Your task to perform on an android device: change notification settings in the gmail app Image 0: 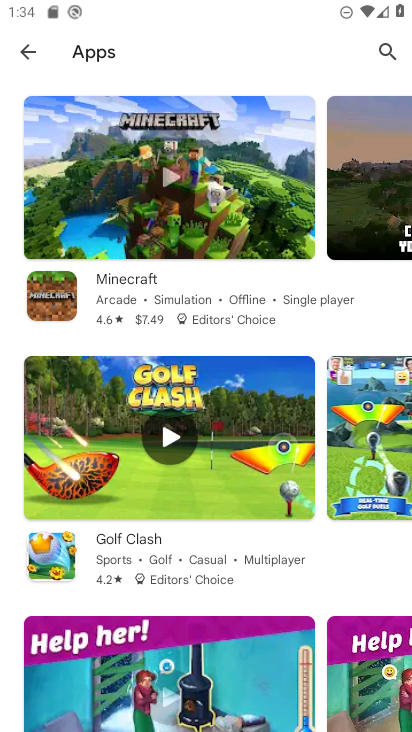
Step 0: press home button
Your task to perform on an android device: change notification settings in the gmail app Image 1: 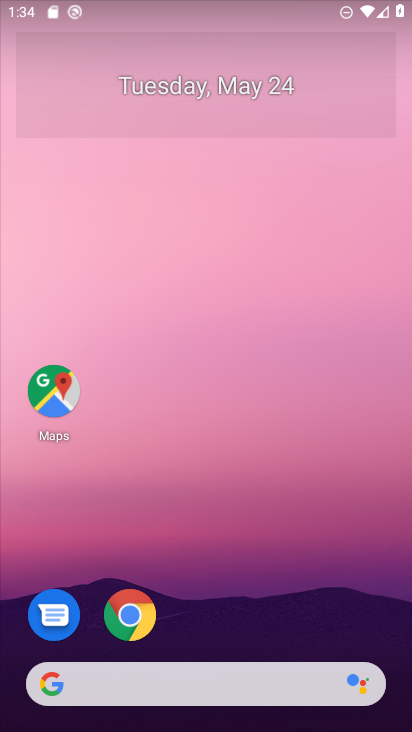
Step 1: drag from (208, 613) to (263, 67)
Your task to perform on an android device: change notification settings in the gmail app Image 2: 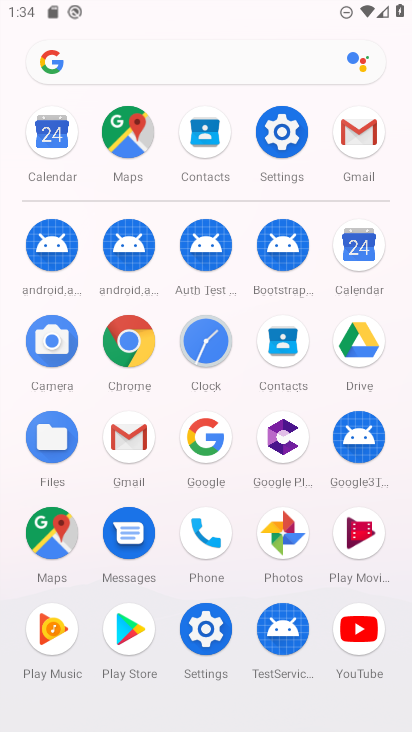
Step 2: click (363, 129)
Your task to perform on an android device: change notification settings in the gmail app Image 3: 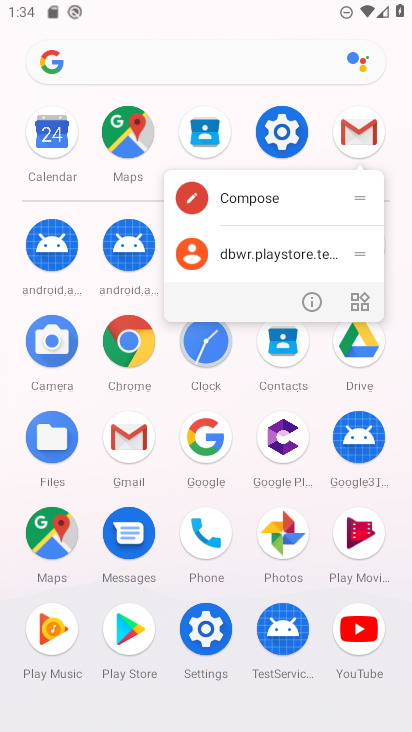
Step 3: click (312, 293)
Your task to perform on an android device: change notification settings in the gmail app Image 4: 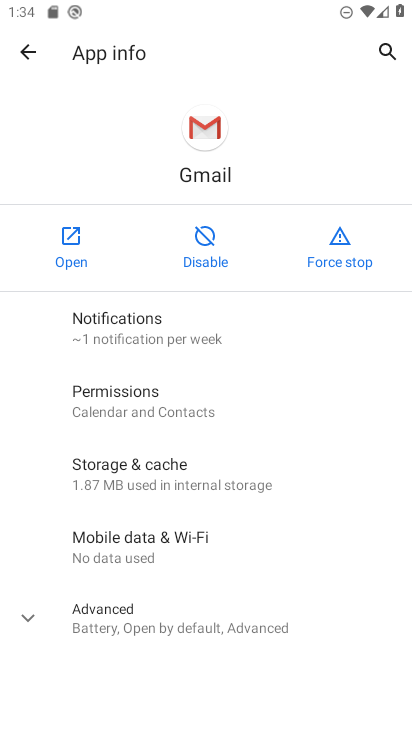
Step 4: click (57, 331)
Your task to perform on an android device: change notification settings in the gmail app Image 5: 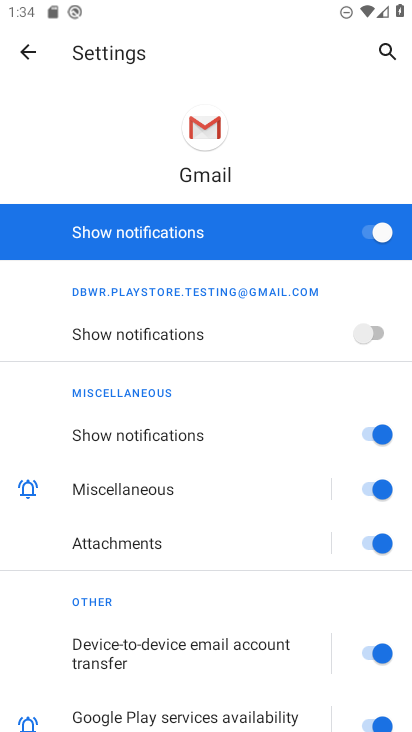
Step 5: click (378, 425)
Your task to perform on an android device: change notification settings in the gmail app Image 6: 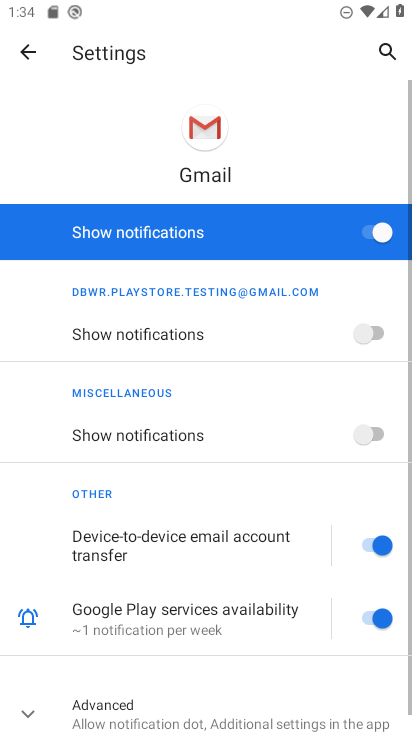
Step 6: task complete